Your task to perform on an android device: Open Yahoo.com Image 0: 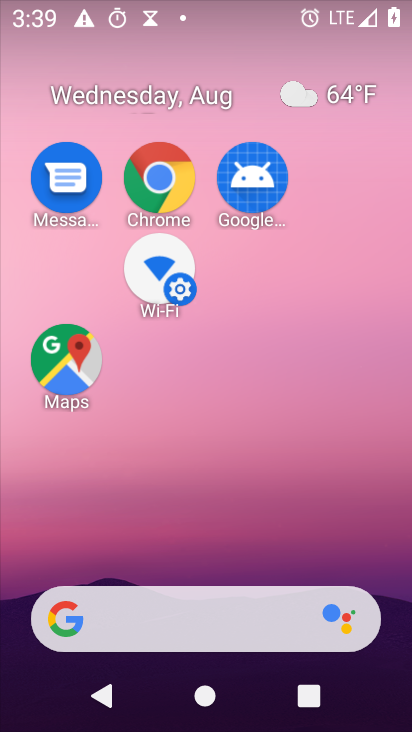
Step 0: press home button
Your task to perform on an android device: Open Yahoo.com Image 1: 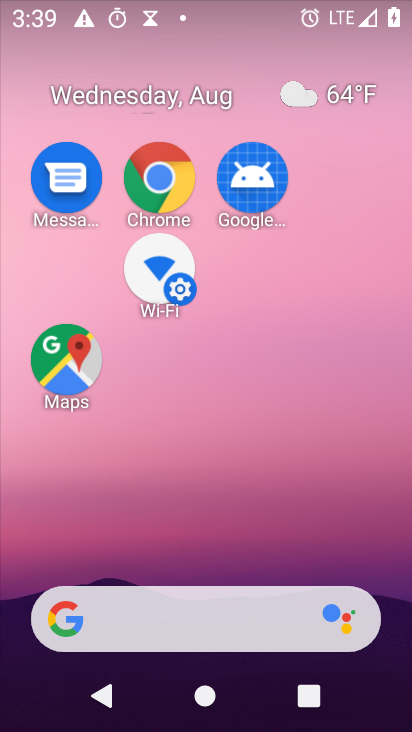
Step 1: click (52, 622)
Your task to perform on an android device: Open Yahoo.com Image 2: 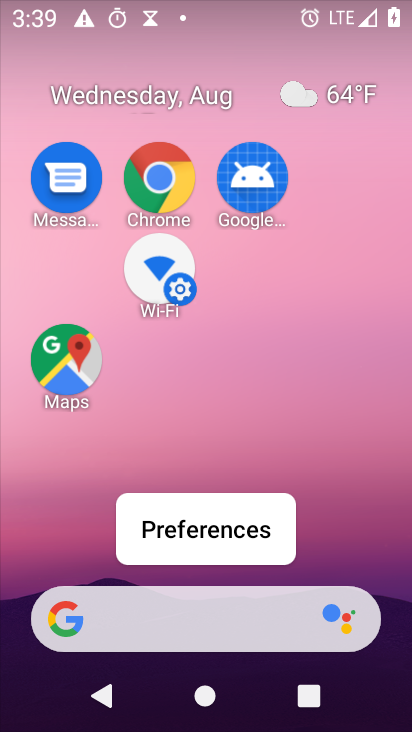
Step 2: click (67, 617)
Your task to perform on an android device: Open Yahoo.com Image 3: 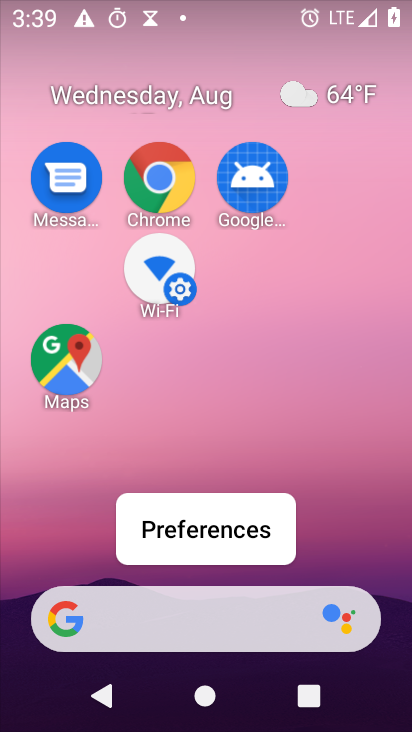
Step 3: click (67, 617)
Your task to perform on an android device: Open Yahoo.com Image 4: 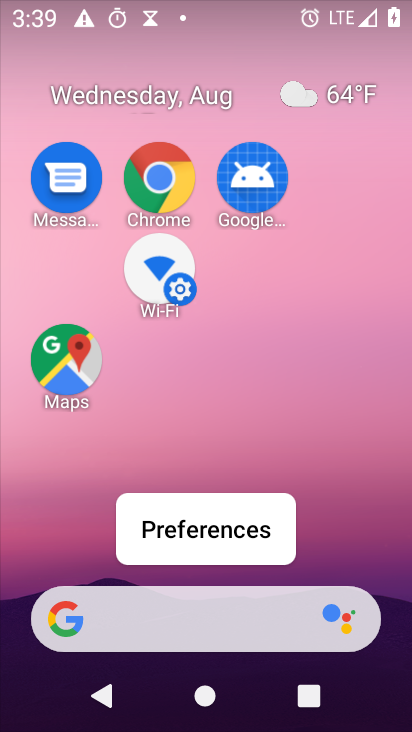
Step 4: click (67, 617)
Your task to perform on an android device: Open Yahoo.com Image 5: 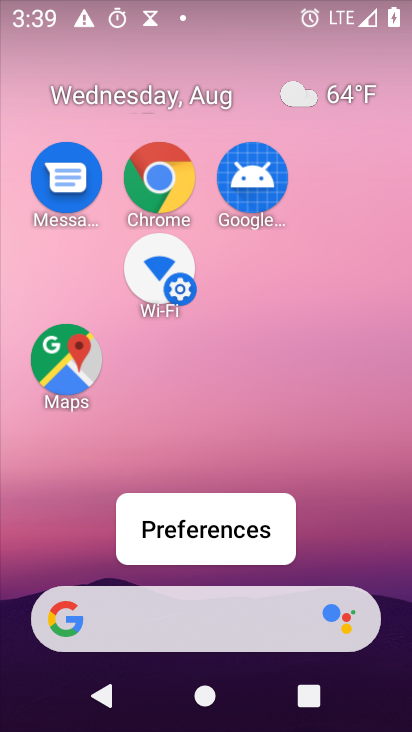
Step 5: click (69, 620)
Your task to perform on an android device: Open Yahoo.com Image 6: 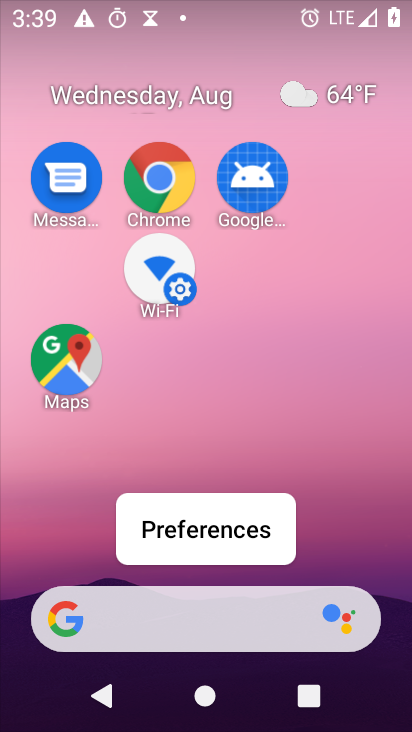
Step 6: click (69, 620)
Your task to perform on an android device: Open Yahoo.com Image 7: 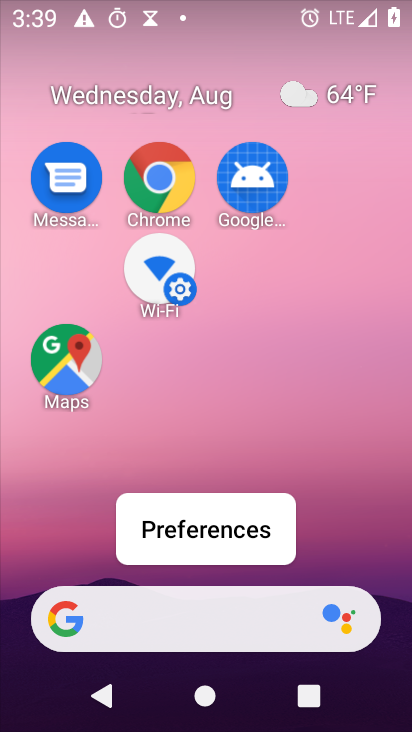
Step 7: click (69, 620)
Your task to perform on an android device: Open Yahoo.com Image 8: 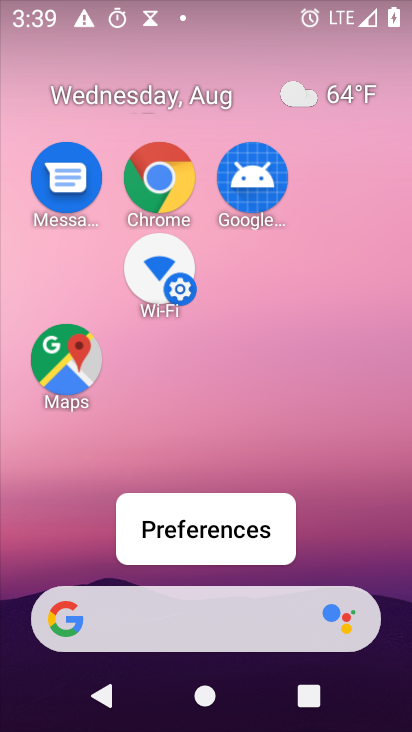
Step 8: click (63, 620)
Your task to perform on an android device: Open Yahoo.com Image 9: 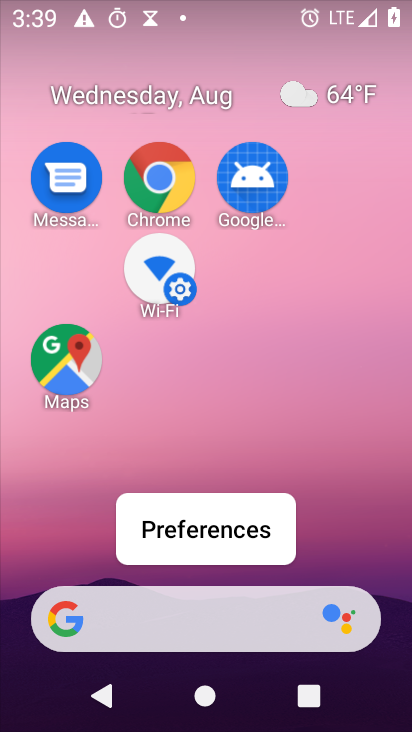
Step 9: click (63, 620)
Your task to perform on an android device: Open Yahoo.com Image 10: 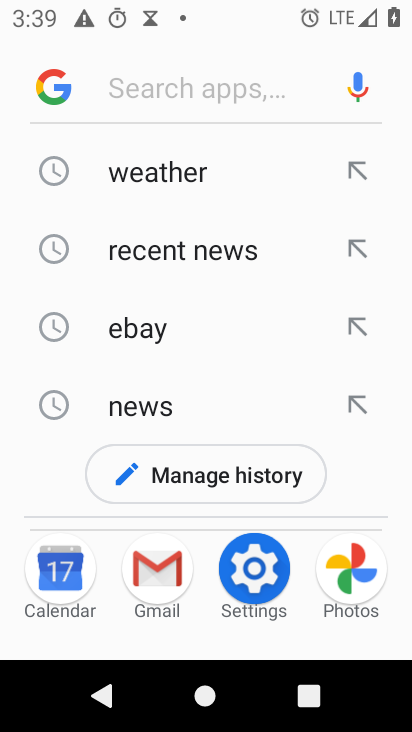
Step 10: type "Yahoo.com"
Your task to perform on an android device: Open Yahoo.com Image 11: 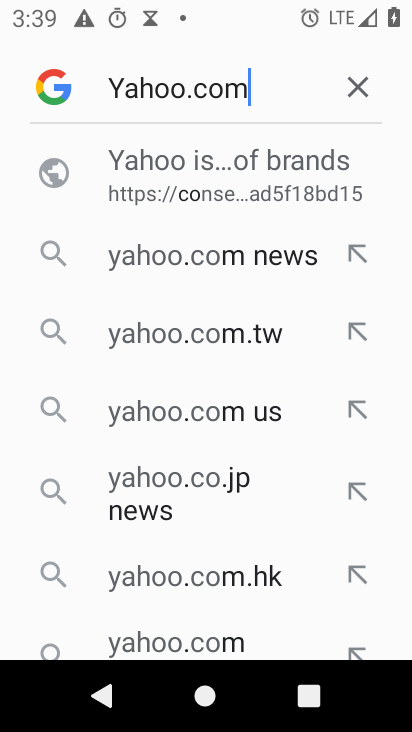
Step 11: press enter
Your task to perform on an android device: Open Yahoo.com Image 12: 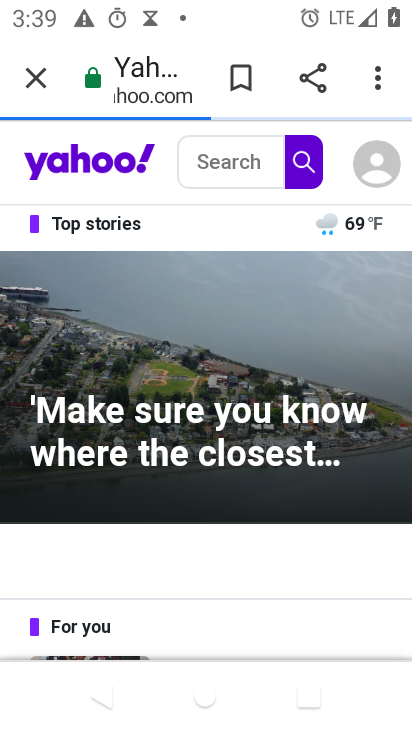
Step 12: task complete